Your task to perform on an android device: change alarm snooze length Image 0: 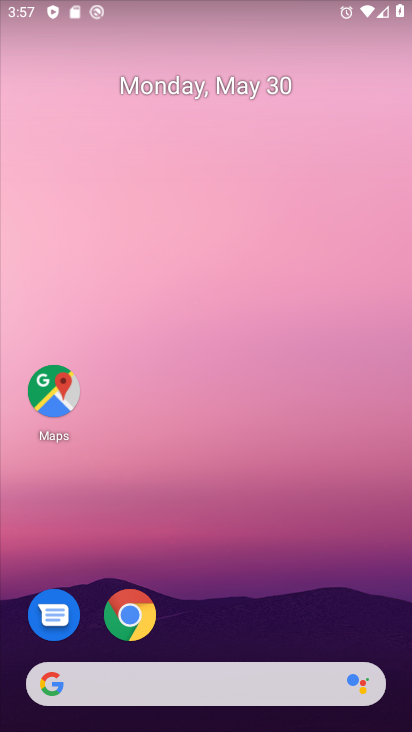
Step 0: drag from (215, 544) to (267, 1)
Your task to perform on an android device: change alarm snooze length Image 1: 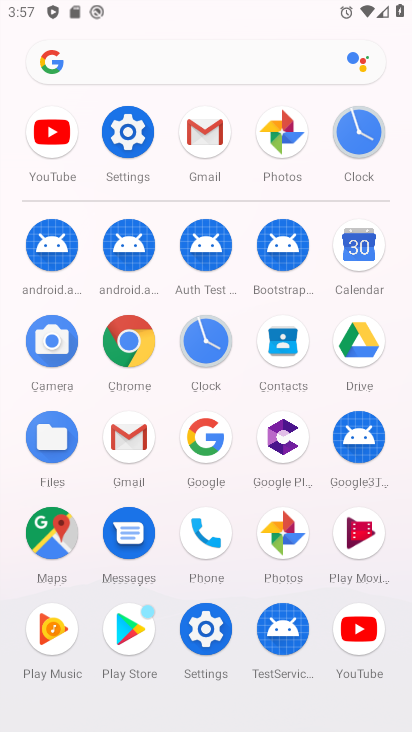
Step 1: click (345, 121)
Your task to perform on an android device: change alarm snooze length Image 2: 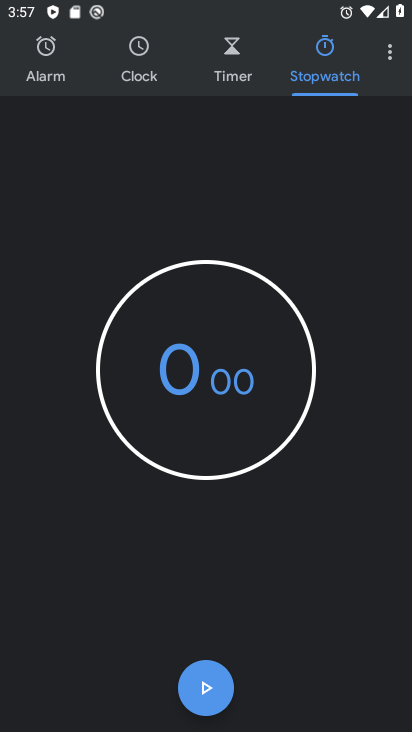
Step 2: click (392, 47)
Your task to perform on an android device: change alarm snooze length Image 3: 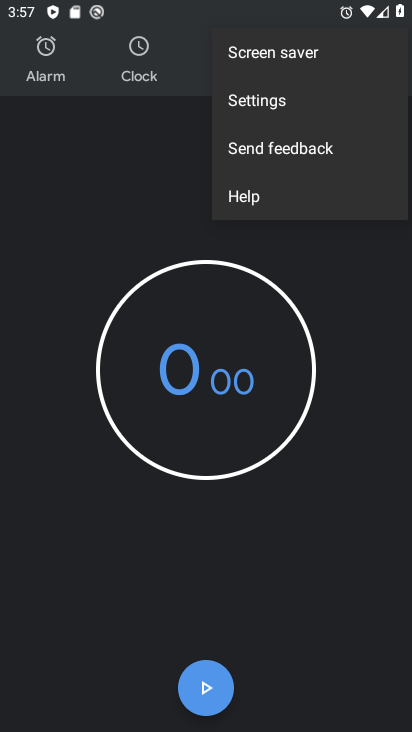
Step 3: click (345, 96)
Your task to perform on an android device: change alarm snooze length Image 4: 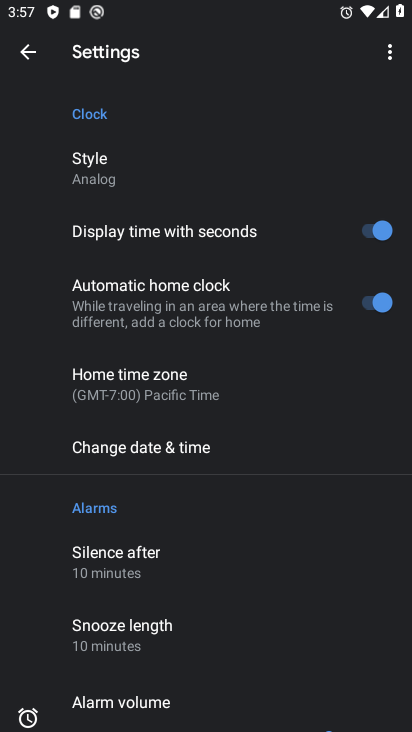
Step 4: drag from (220, 566) to (208, 346)
Your task to perform on an android device: change alarm snooze length Image 5: 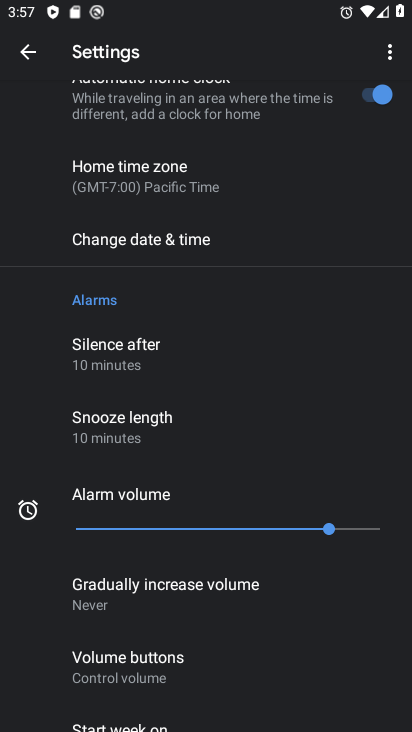
Step 5: drag from (237, 315) to (241, 406)
Your task to perform on an android device: change alarm snooze length Image 6: 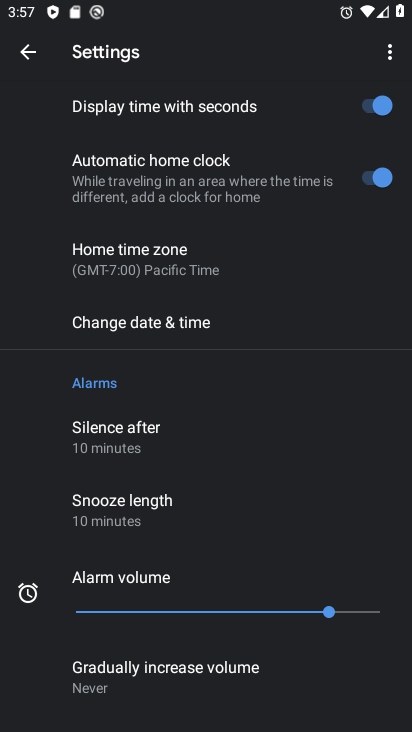
Step 6: click (207, 509)
Your task to perform on an android device: change alarm snooze length Image 7: 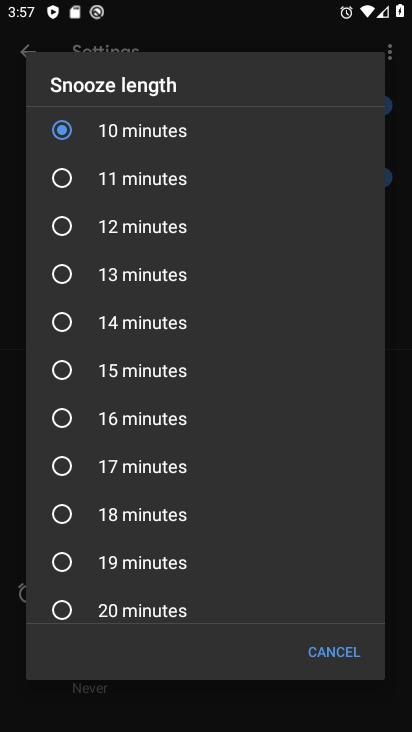
Step 7: click (62, 222)
Your task to perform on an android device: change alarm snooze length Image 8: 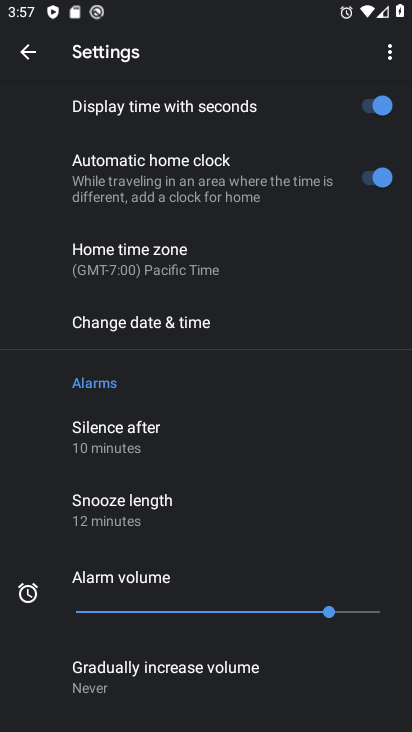
Step 8: task complete